Your task to perform on an android device: open app "Messenger Lite" (install if not already installed), go to login, and select forgot password Image 0: 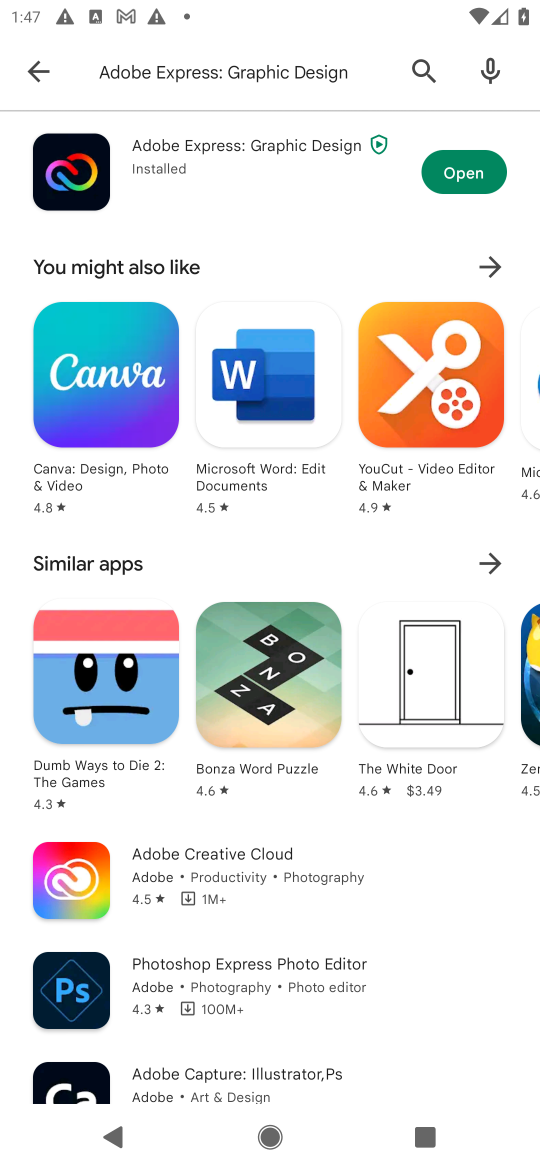
Step 0: press home button
Your task to perform on an android device: open app "Messenger Lite" (install if not already installed), go to login, and select forgot password Image 1: 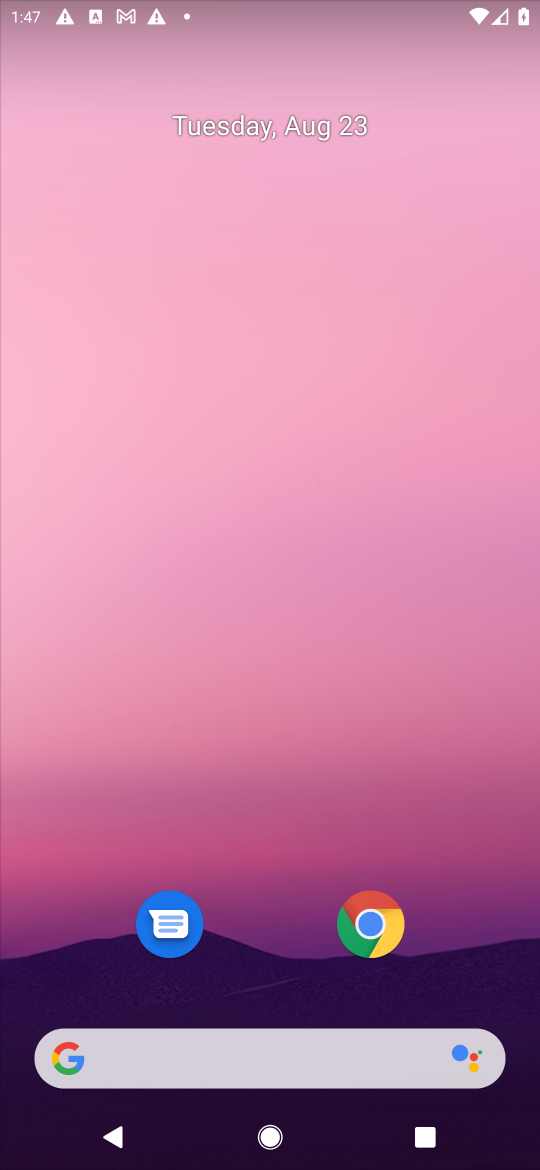
Step 1: drag from (478, 895) to (481, 120)
Your task to perform on an android device: open app "Messenger Lite" (install if not already installed), go to login, and select forgot password Image 2: 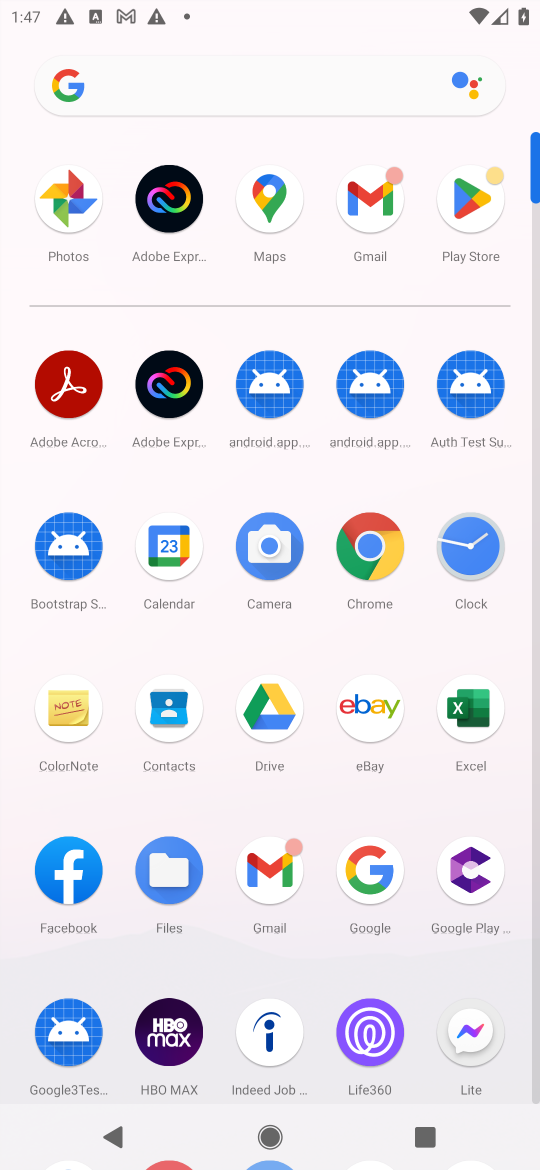
Step 2: click (472, 195)
Your task to perform on an android device: open app "Messenger Lite" (install if not already installed), go to login, and select forgot password Image 3: 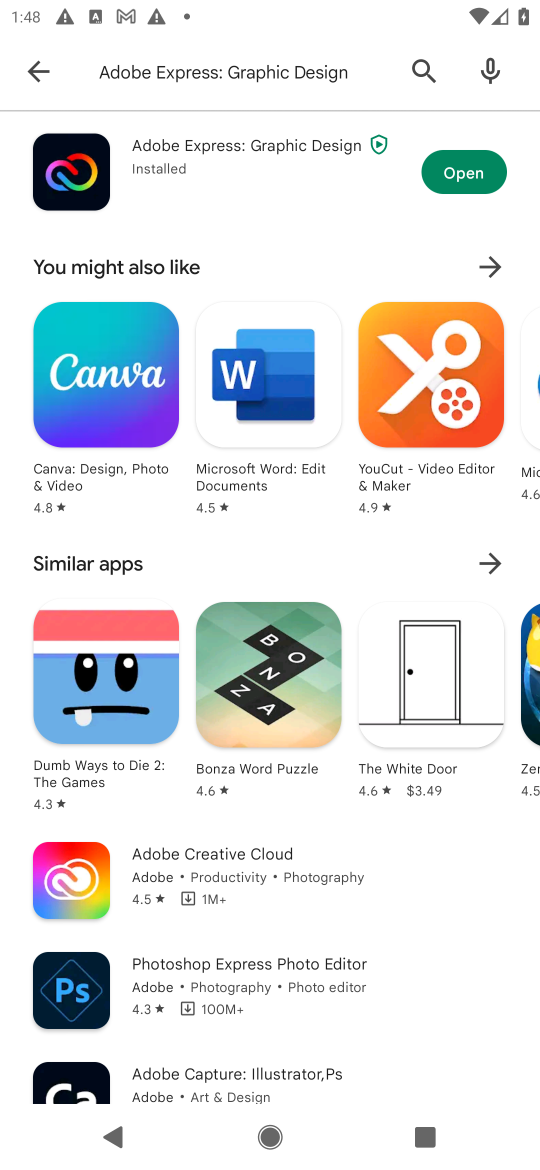
Step 3: press back button
Your task to perform on an android device: open app "Messenger Lite" (install if not already installed), go to login, and select forgot password Image 4: 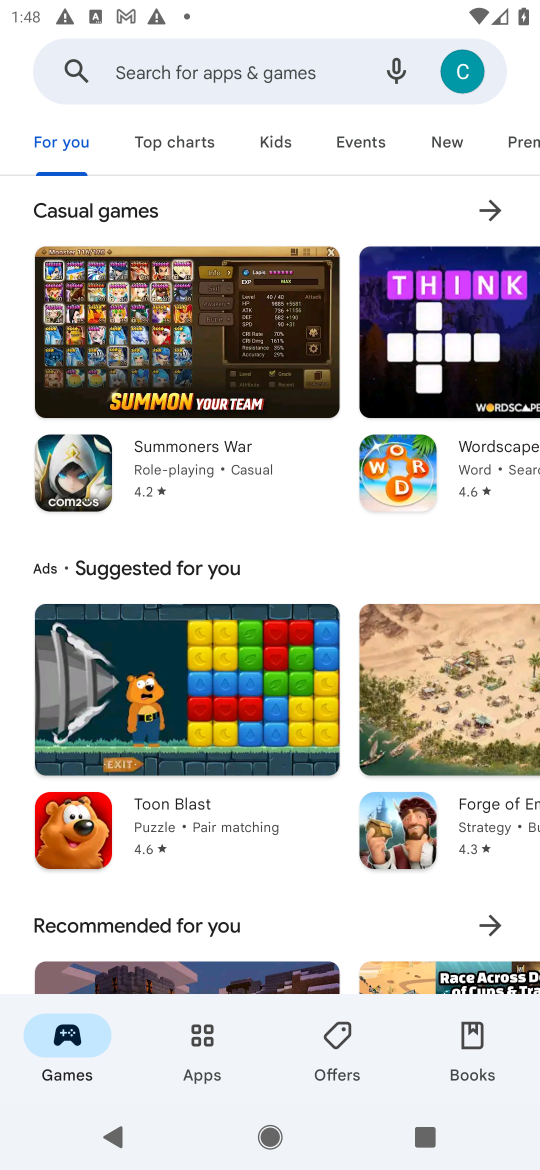
Step 4: click (180, 71)
Your task to perform on an android device: open app "Messenger Lite" (install if not already installed), go to login, and select forgot password Image 5: 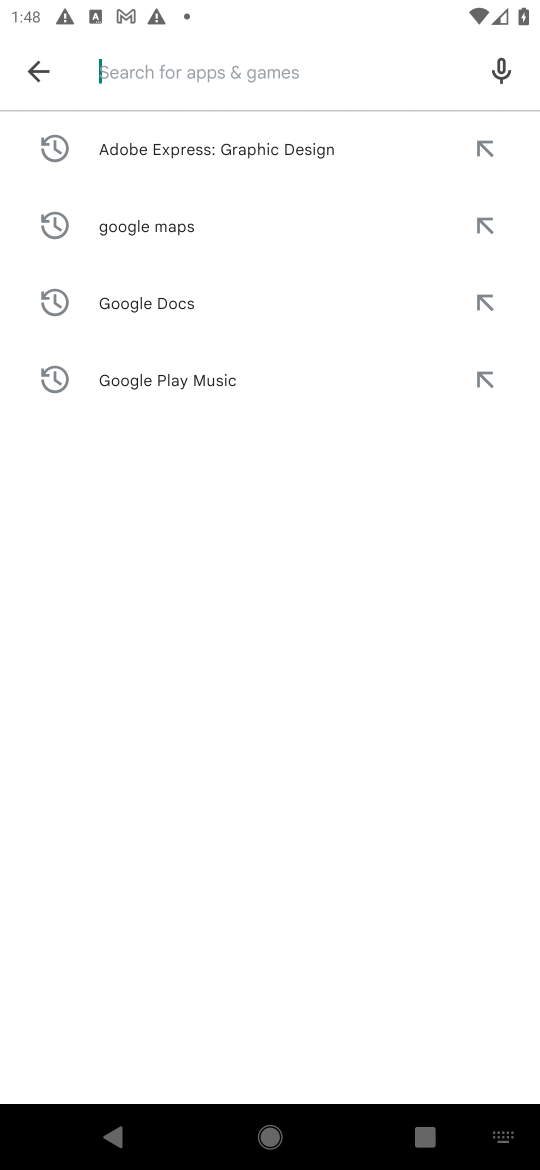
Step 5: type "messenger lite"
Your task to perform on an android device: open app "Messenger Lite" (install if not already installed), go to login, and select forgot password Image 6: 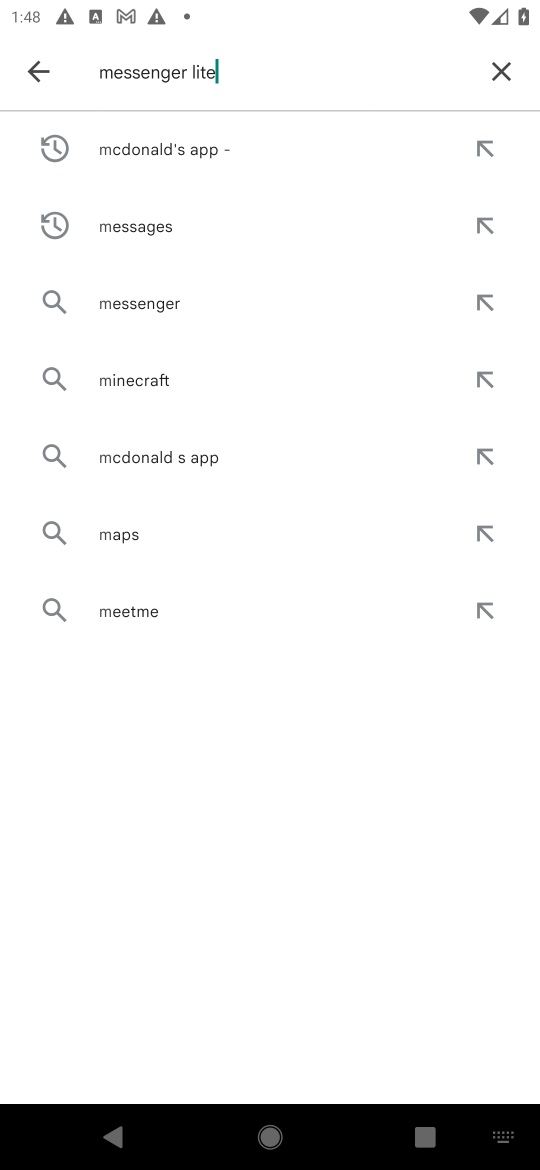
Step 6: press enter
Your task to perform on an android device: open app "Messenger Lite" (install if not already installed), go to login, and select forgot password Image 7: 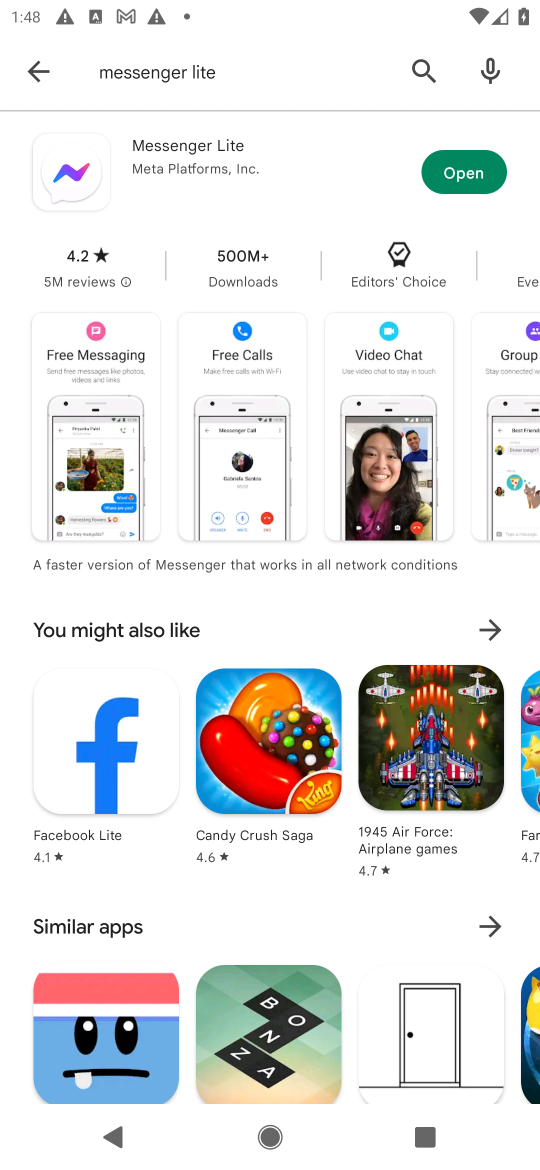
Step 7: click (459, 163)
Your task to perform on an android device: open app "Messenger Lite" (install if not already installed), go to login, and select forgot password Image 8: 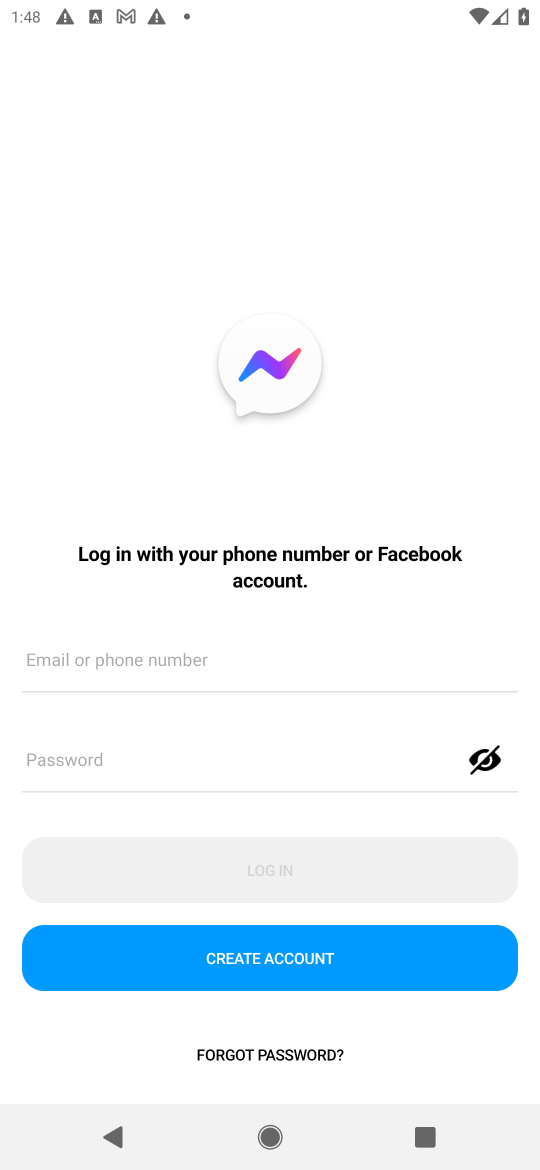
Step 8: click (286, 1049)
Your task to perform on an android device: open app "Messenger Lite" (install if not already installed), go to login, and select forgot password Image 9: 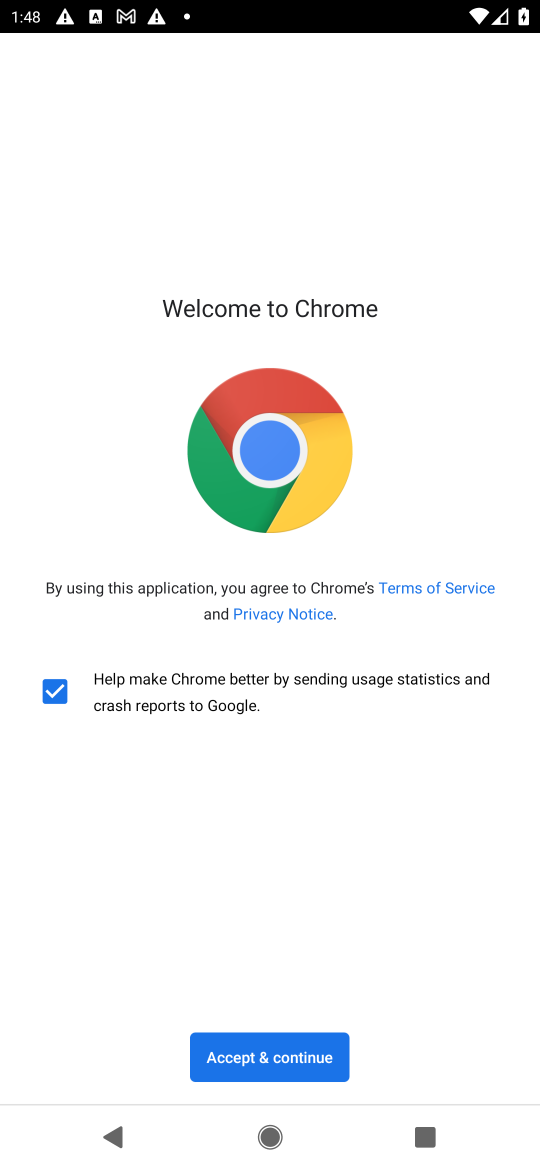
Step 9: task complete